Your task to perform on an android device: turn on the 24-hour format for clock Image 0: 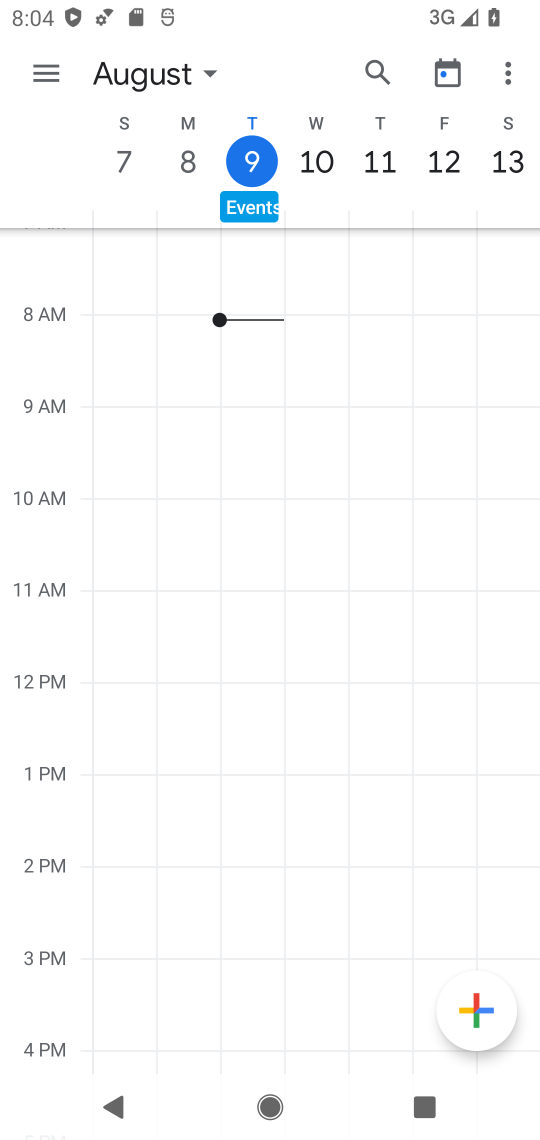
Step 0: press home button
Your task to perform on an android device: turn on the 24-hour format for clock Image 1: 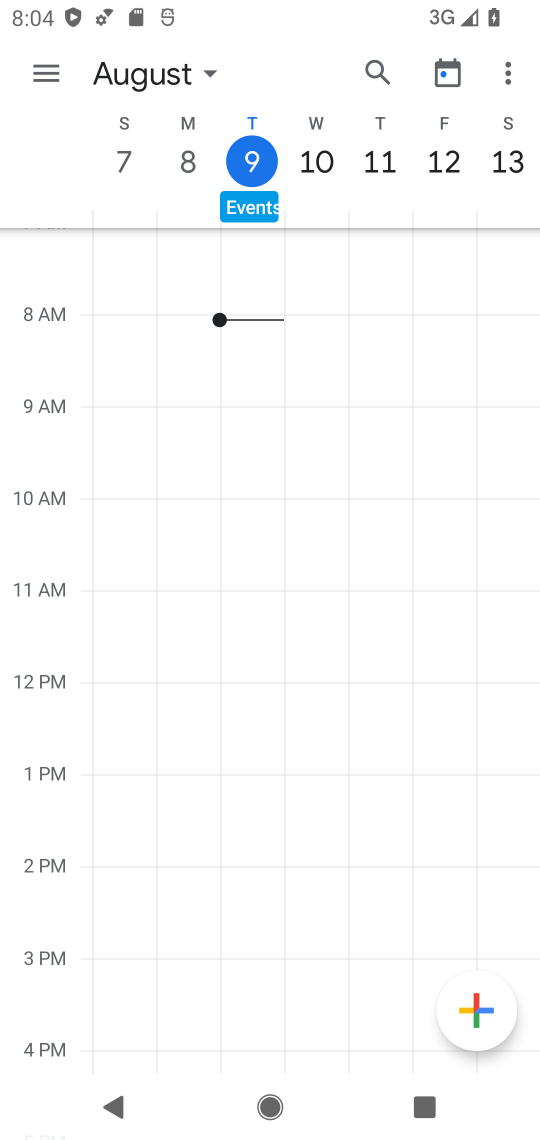
Step 1: press home button
Your task to perform on an android device: turn on the 24-hour format for clock Image 2: 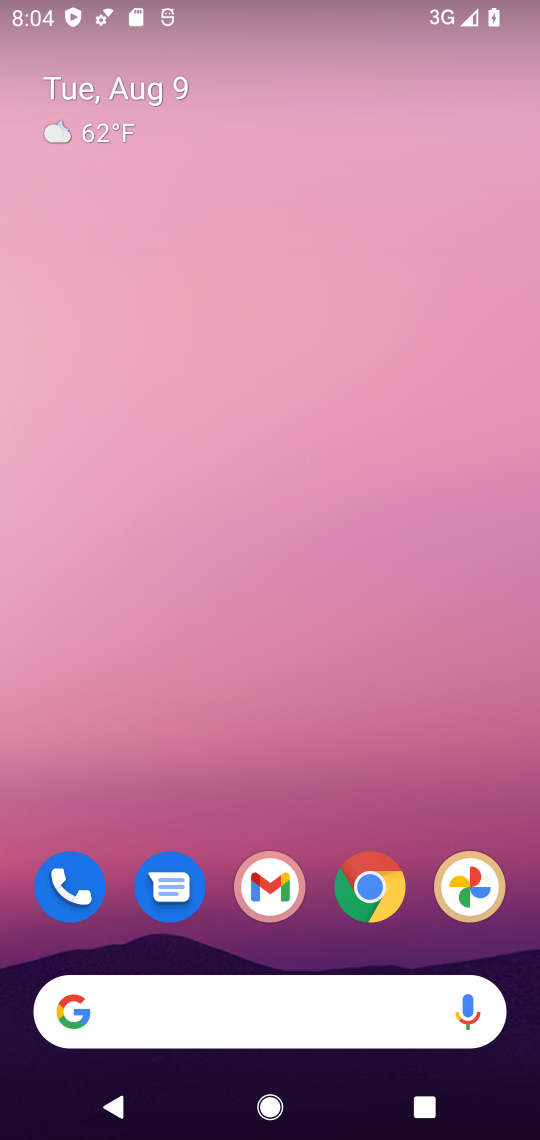
Step 2: drag from (305, 650) to (339, 9)
Your task to perform on an android device: turn on the 24-hour format for clock Image 3: 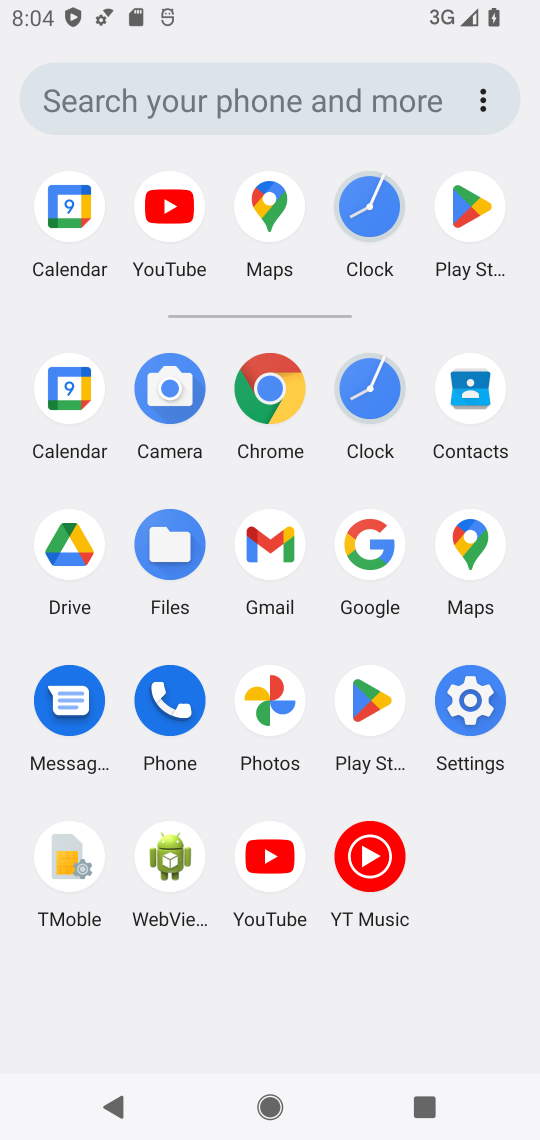
Step 3: click (362, 189)
Your task to perform on an android device: turn on the 24-hour format for clock Image 4: 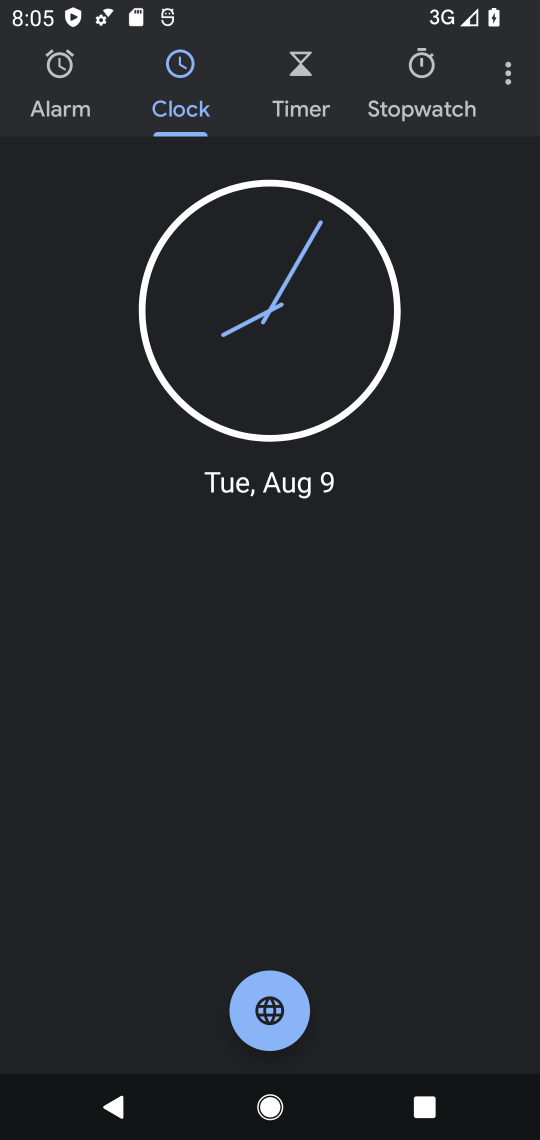
Step 4: click (512, 72)
Your task to perform on an android device: turn on the 24-hour format for clock Image 5: 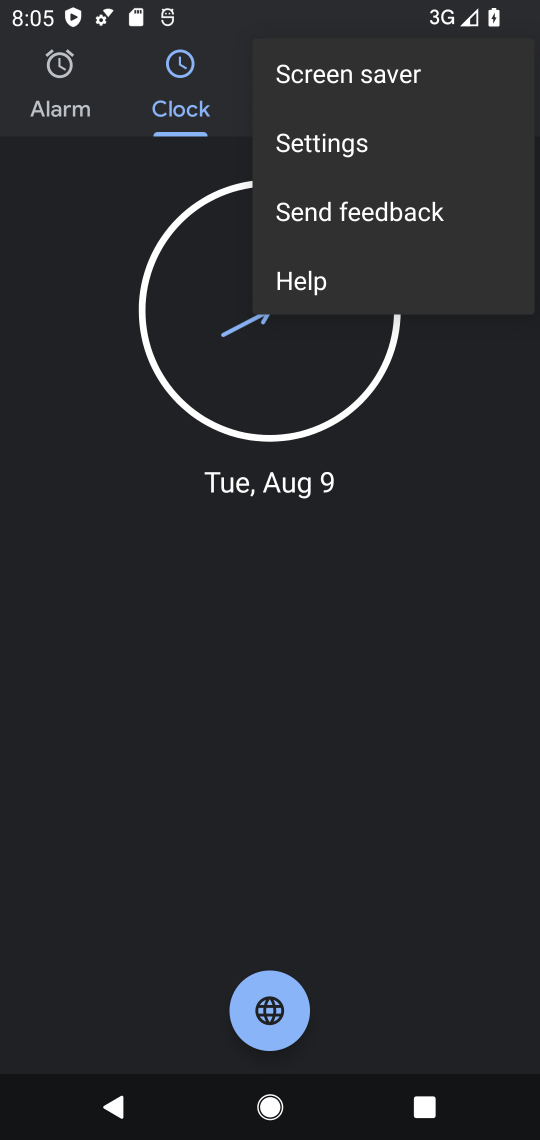
Step 5: click (372, 145)
Your task to perform on an android device: turn on the 24-hour format for clock Image 6: 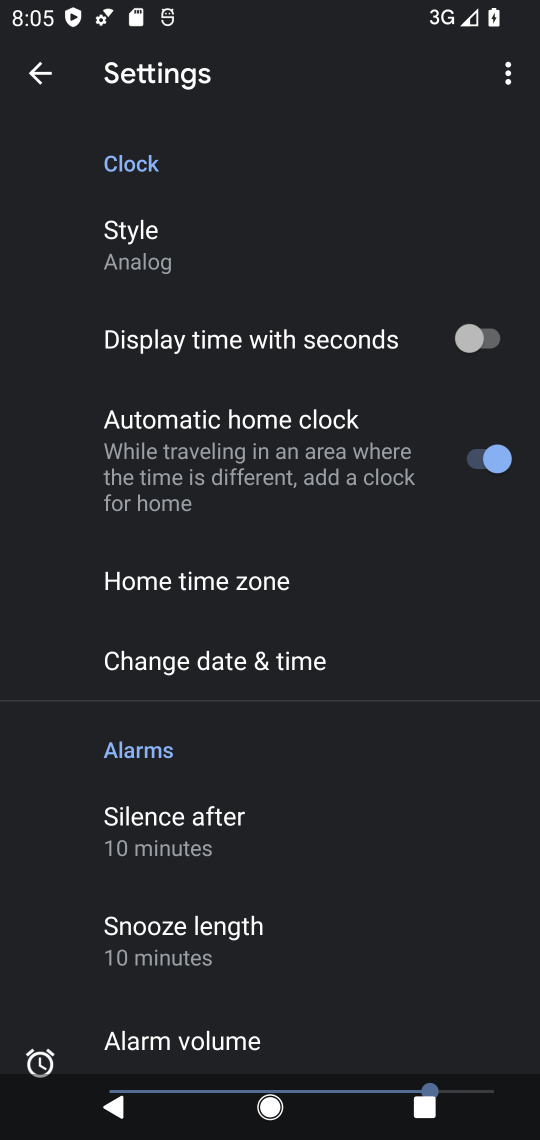
Step 6: click (345, 662)
Your task to perform on an android device: turn on the 24-hour format for clock Image 7: 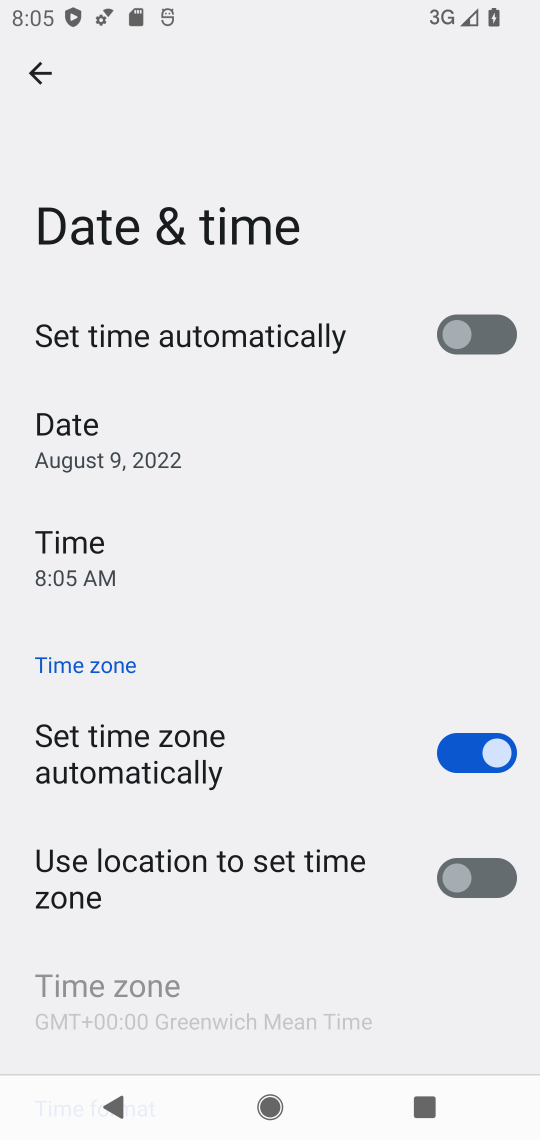
Step 7: drag from (329, 852) to (352, 248)
Your task to perform on an android device: turn on the 24-hour format for clock Image 8: 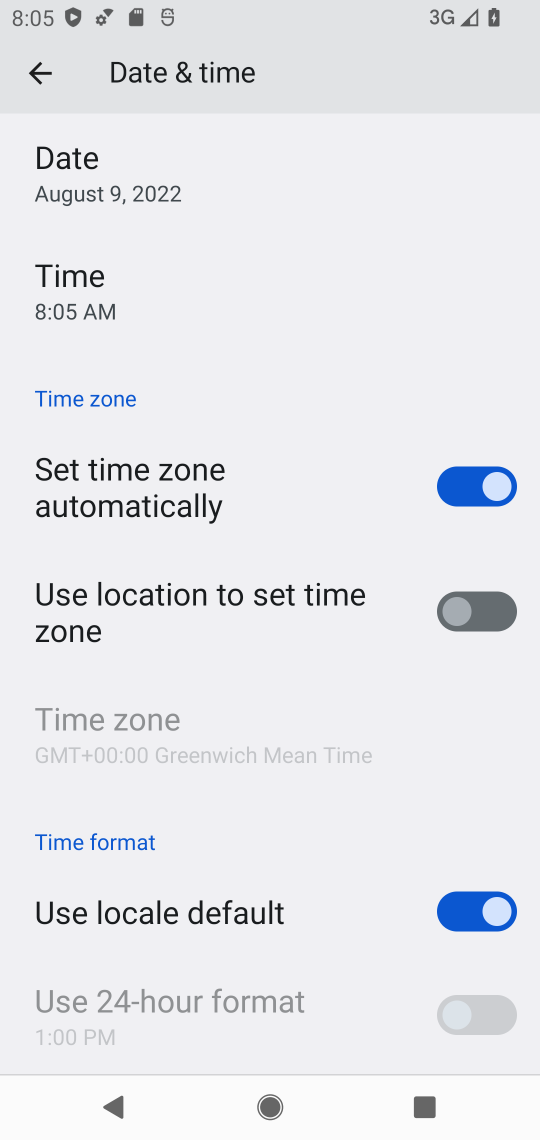
Step 8: click (475, 911)
Your task to perform on an android device: turn on the 24-hour format for clock Image 9: 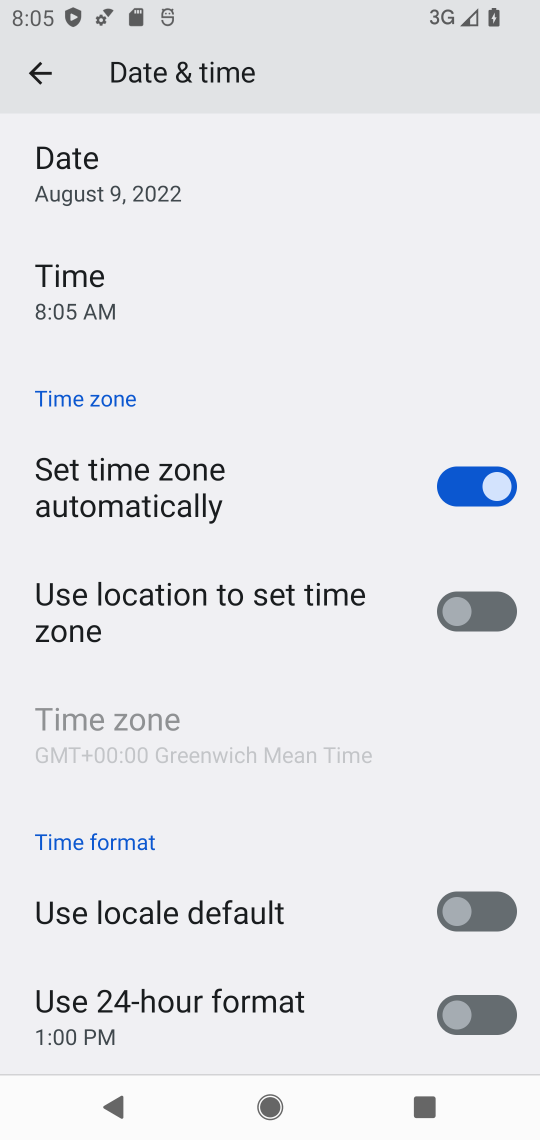
Step 9: click (489, 1008)
Your task to perform on an android device: turn on the 24-hour format for clock Image 10: 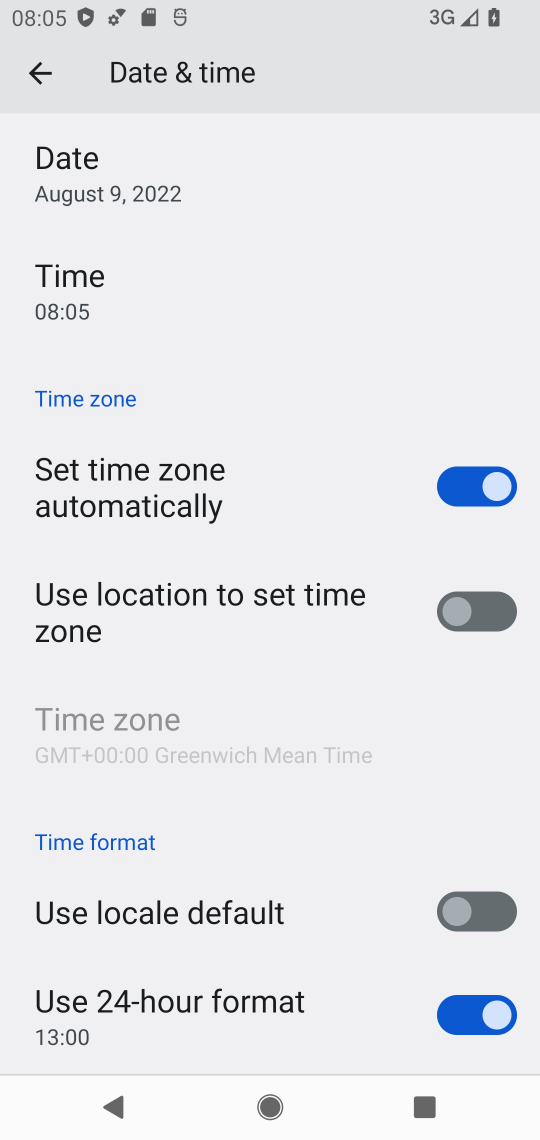
Step 10: task complete